Your task to perform on an android device: Go to ESPN.com Image 0: 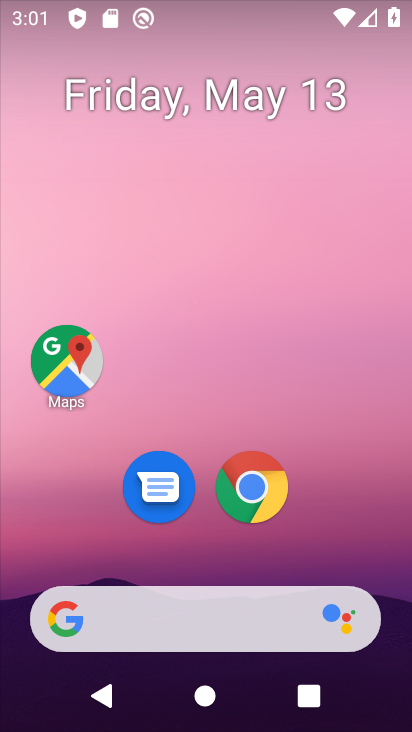
Step 0: drag from (360, 471) to (389, 93)
Your task to perform on an android device: Go to ESPN.com Image 1: 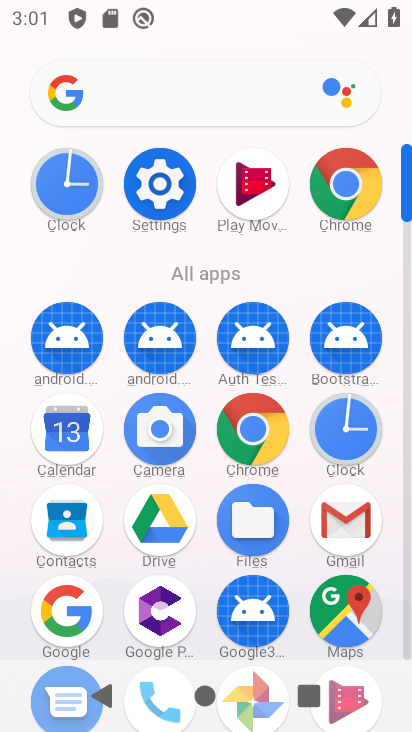
Step 1: click (351, 208)
Your task to perform on an android device: Go to ESPN.com Image 2: 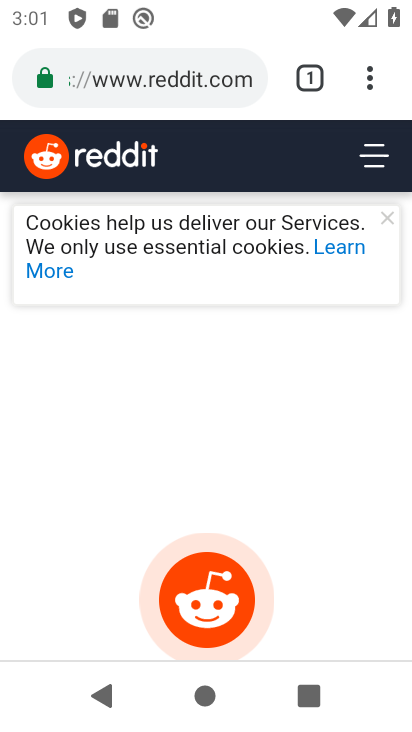
Step 2: click (203, 73)
Your task to perform on an android device: Go to ESPN.com Image 3: 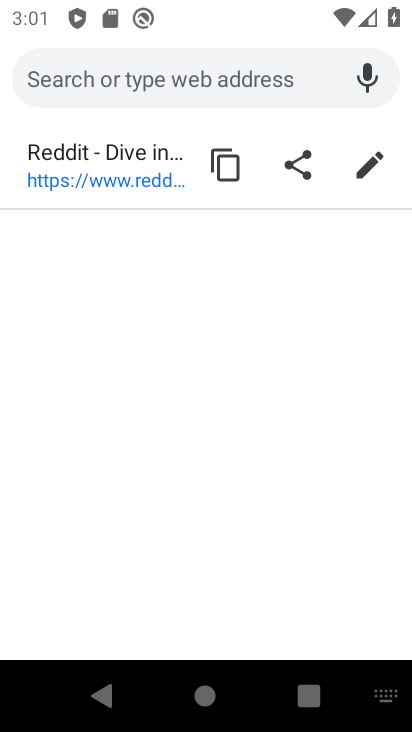
Step 3: type "espn"
Your task to perform on an android device: Go to ESPN.com Image 4: 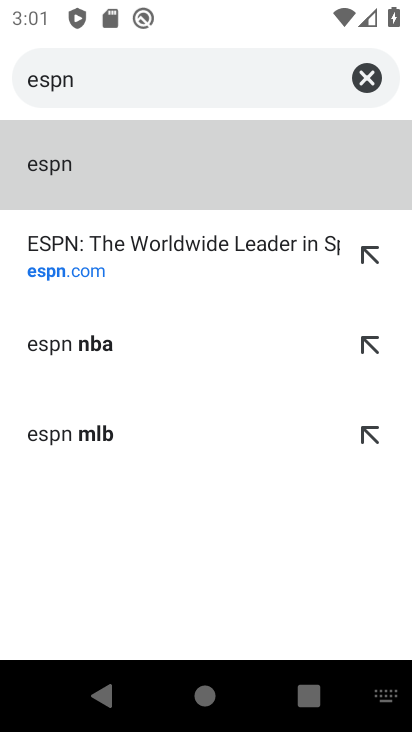
Step 4: click (94, 265)
Your task to perform on an android device: Go to ESPN.com Image 5: 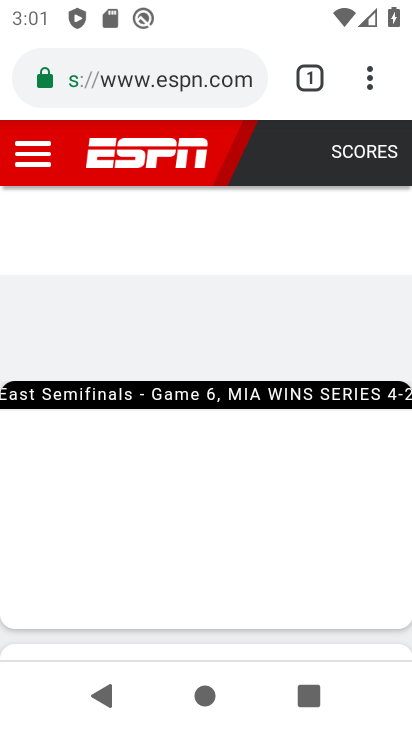
Step 5: task complete